Your task to perform on an android device: Open accessibility settings Image 0: 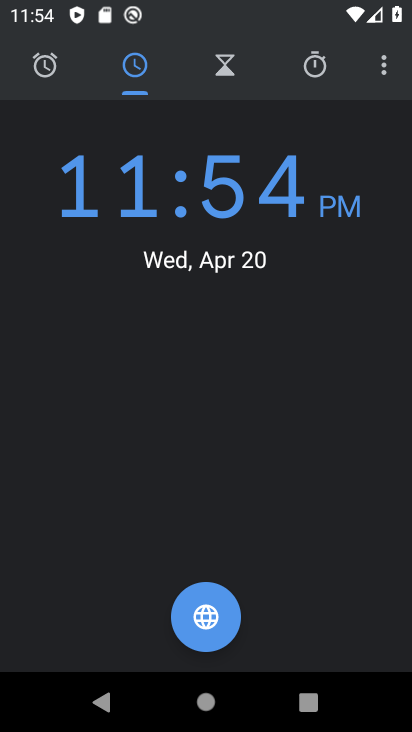
Step 0: press home button
Your task to perform on an android device: Open accessibility settings Image 1: 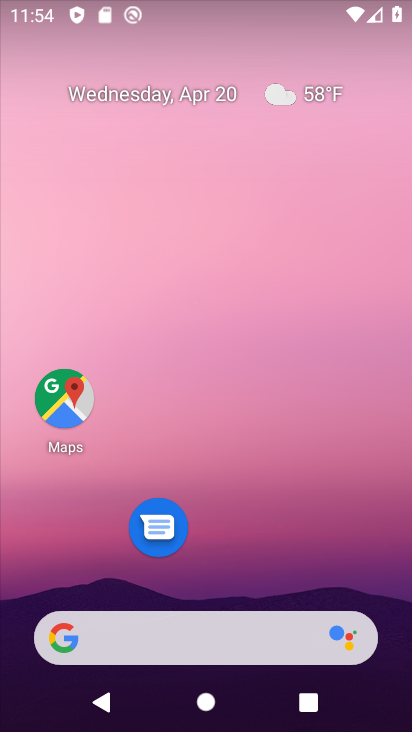
Step 1: drag from (222, 722) to (216, 142)
Your task to perform on an android device: Open accessibility settings Image 2: 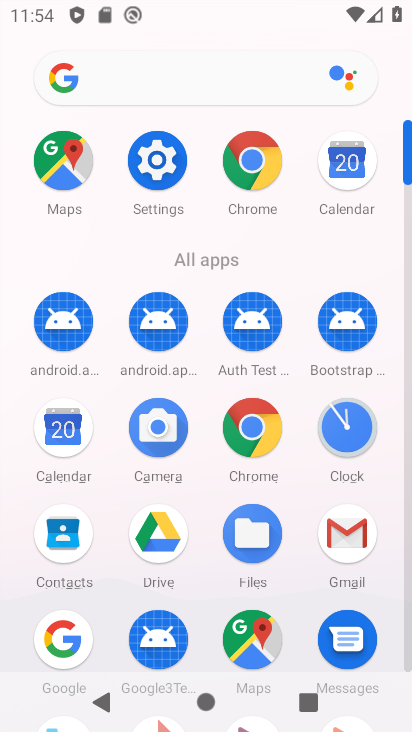
Step 2: click (154, 159)
Your task to perform on an android device: Open accessibility settings Image 3: 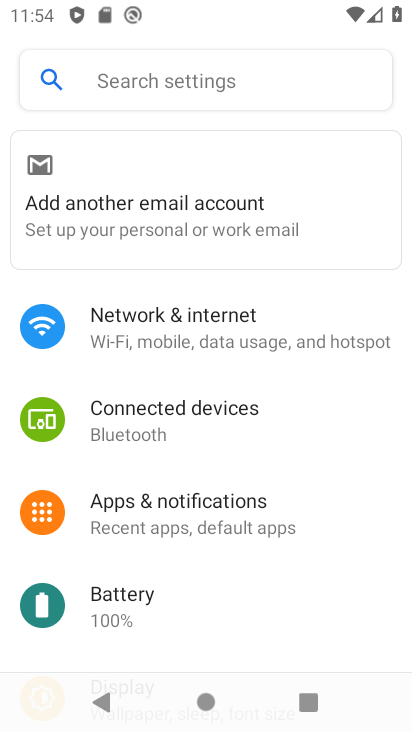
Step 3: drag from (183, 617) to (195, 251)
Your task to perform on an android device: Open accessibility settings Image 4: 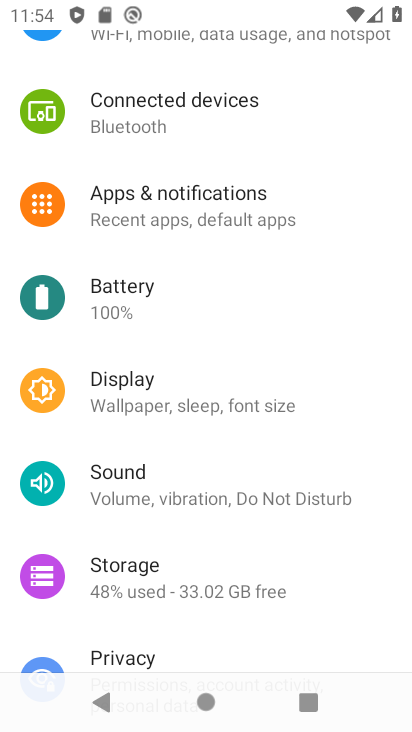
Step 4: drag from (186, 629) to (184, 237)
Your task to perform on an android device: Open accessibility settings Image 5: 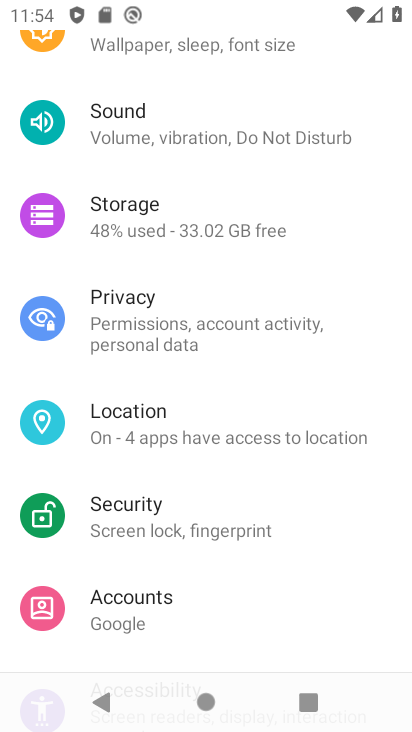
Step 5: drag from (169, 633) to (172, 159)
Your task to perform on an android device: Open accessibility settings Image 6: 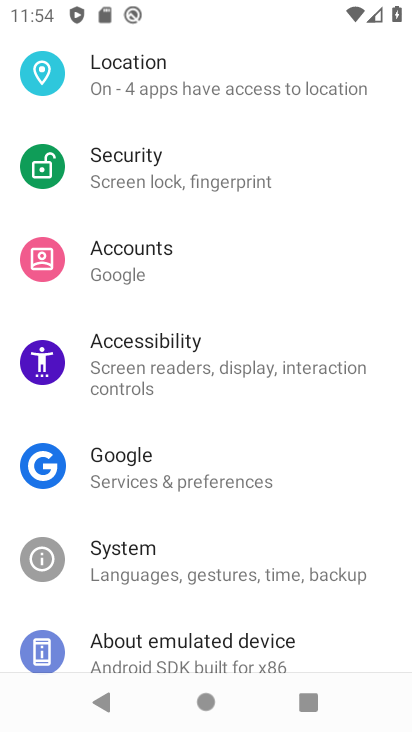
Step 6: click (152, 357)
Your task to perform on an android device: Open accessibility settings Image 7: 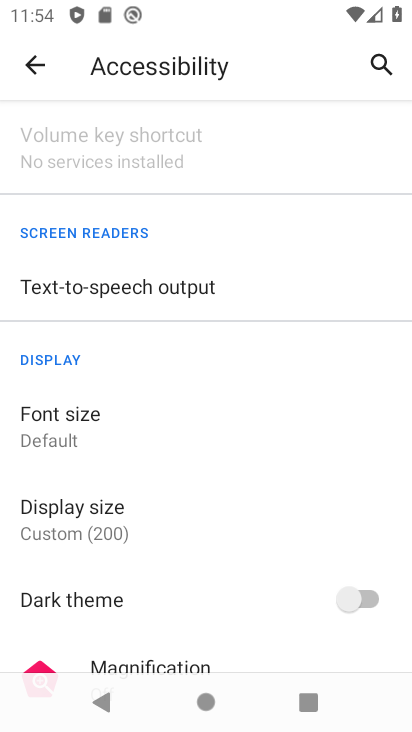
Step 7: task complete